Your task to perform on an android device: Toggle the flashlight Image 0: 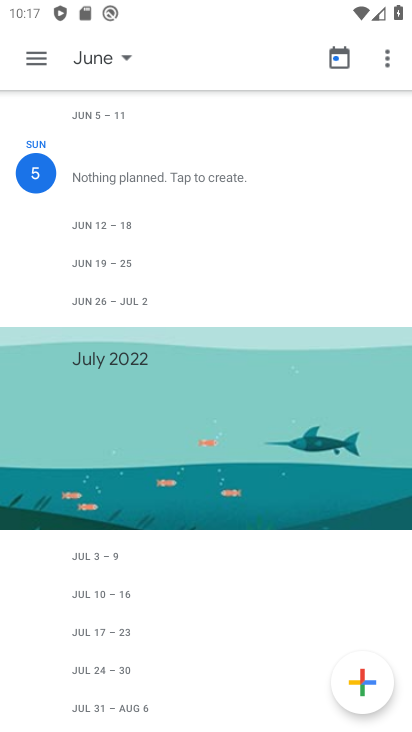
Step 0: drag from (345, 13) to (244, 553)
Your task to perform on an android device: Toggle the flashlight Image 1: 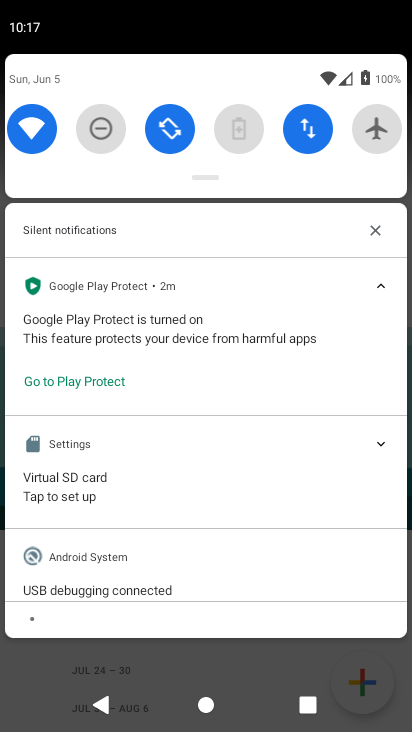
Step 1: press back button
Your task to perform on an android device: Toggle the flashlight Image 2: 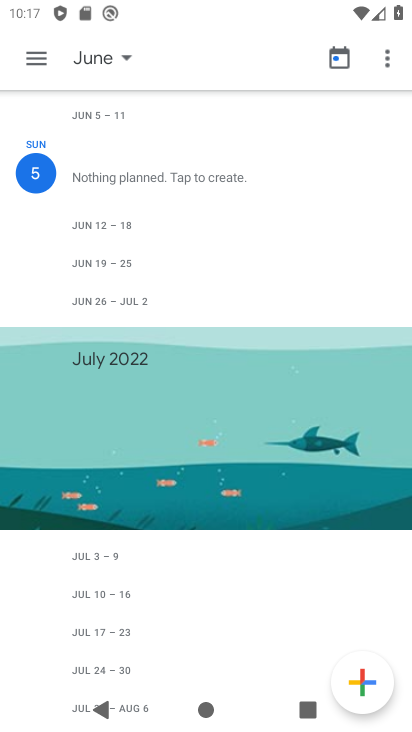
Step 2: press back button
Your task to perform on an android device: Toggle the flashlight Image 3: 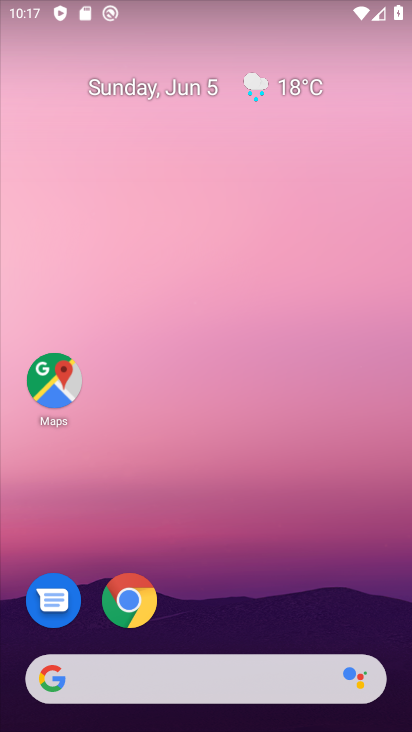
Step 3: drag from (249, 535) to (246, 83)
Your task to perform on an android device: Toggle the flashlight Image 4: 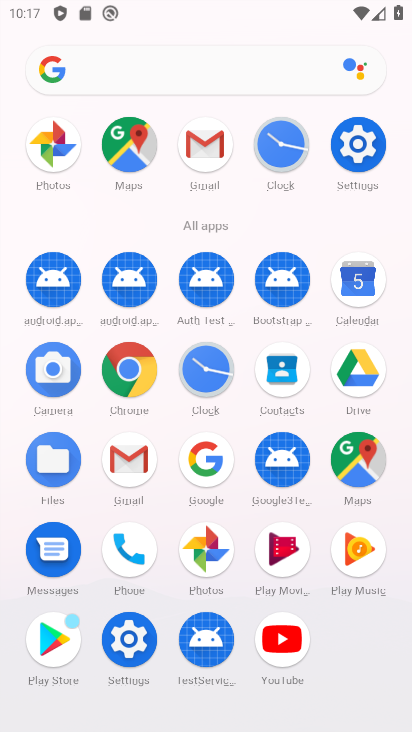
Step 4: click (348, 133)
Your task to perform on an android device: Toggle the flashlight Image 5: 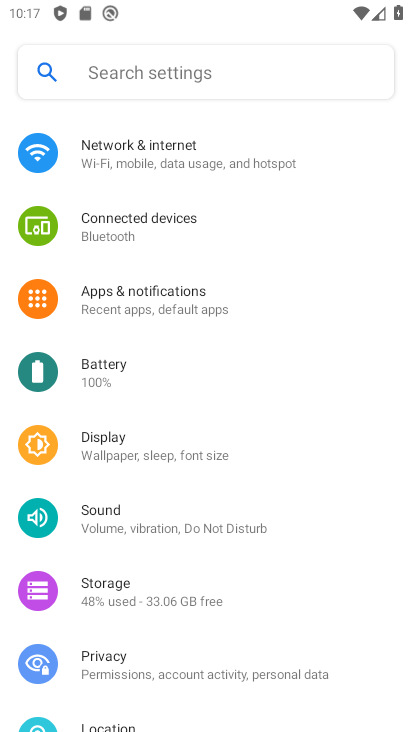
Step 5: click (142, 75)
Your task to perform on an android device: Toggle the flashlight Image 6: 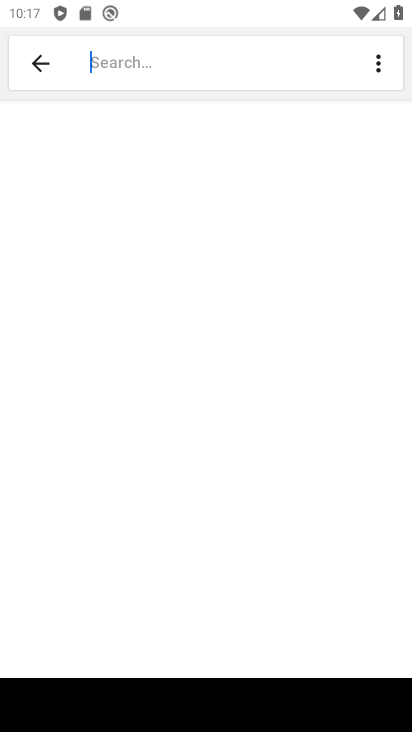
Step 6: type "flashlight"
Your task to perform on an android device: Toggle the flashlight Image 7: 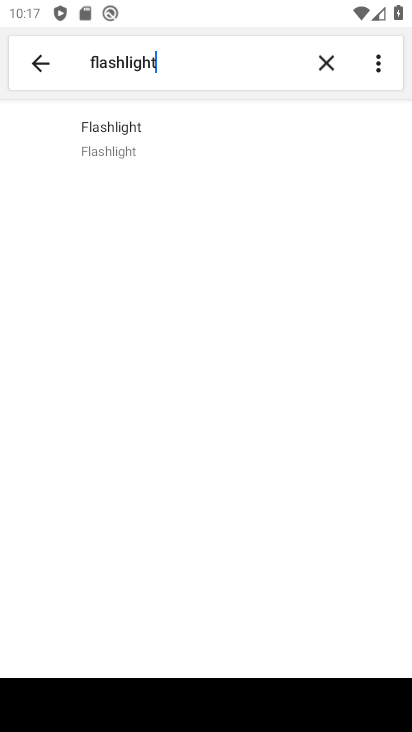
Step 7: click (132, 107)
Your task to perform on an android device: Toggle the flashlight Image 8: 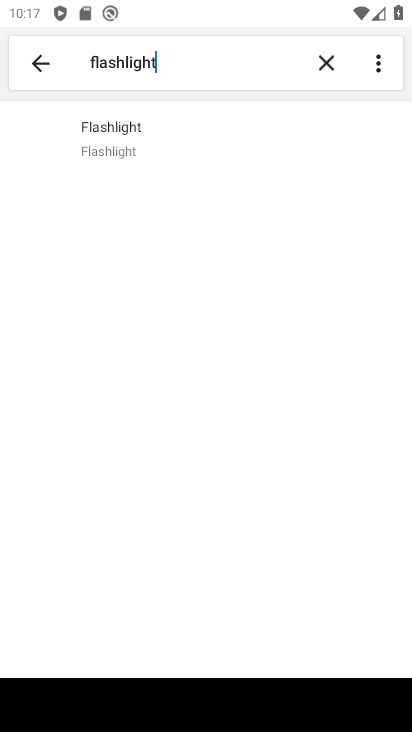
Step 8: task complete